Your task to perform on an android device: Check the weather Image 0: 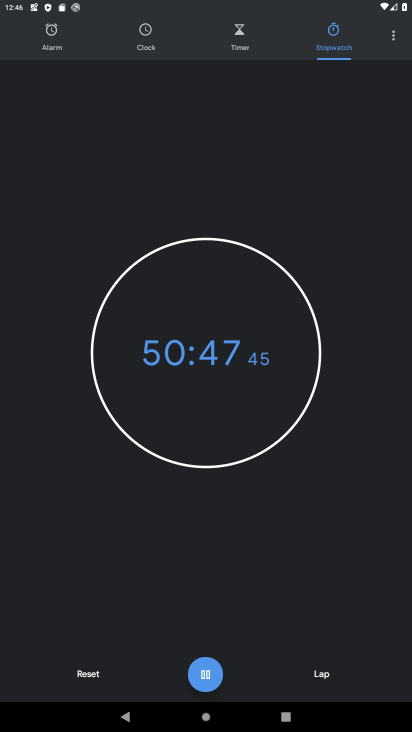
Step 0: press home button
Your task to perform on an android device: Check the weather Image 1: 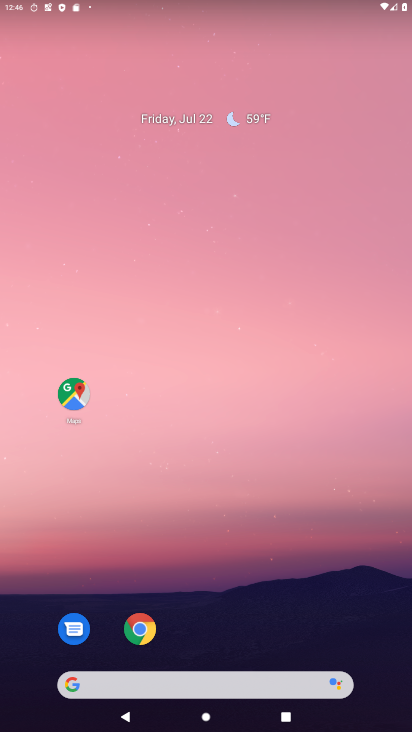
Step 1: drag from (281, 692) to (296, 213)
Your task to perform on an android device: Check the weather Image 2: 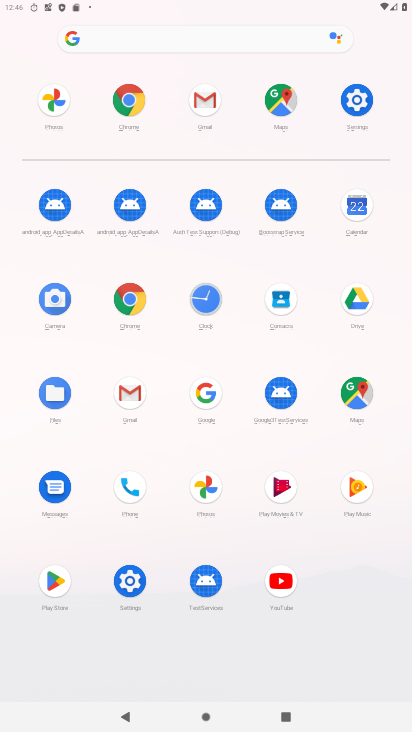
Step 2: click (208, 392)
Your task to perform on an android device: Check the weather Image 3: 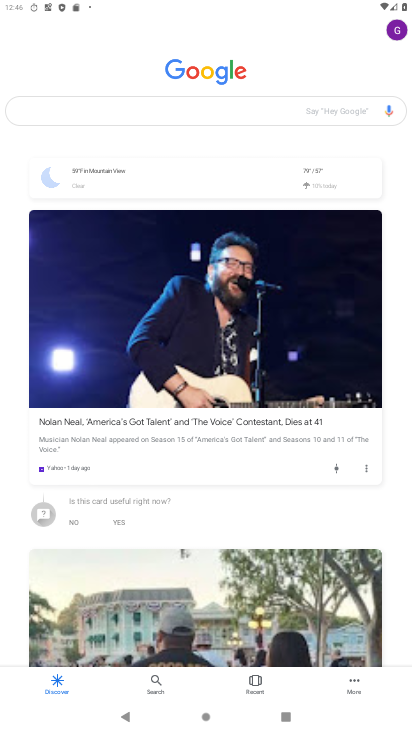
Step 3: click (212, 110)
Your task to perform on an android device: Check the weather Image 4: 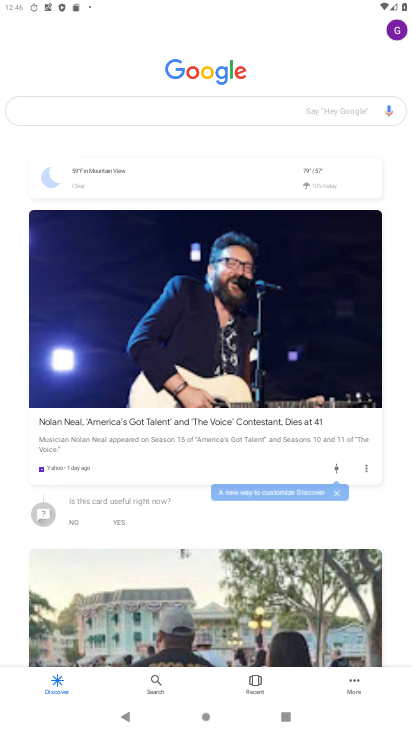
Step 4: click (212, 110)
Your task to perform on an android device: Check the weather Image 5: 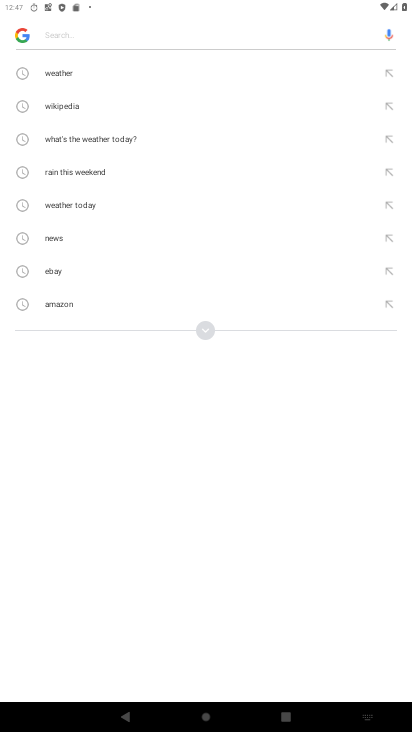
Step 5: click (85, 76)
Your task to perform on an android device: Check the weather Image 6: 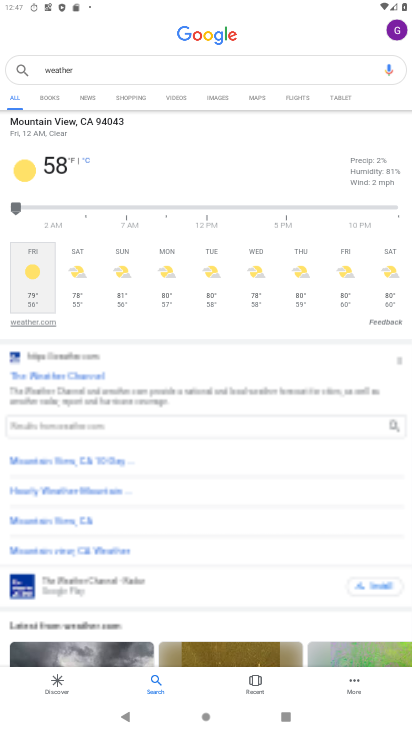
Step 6: task complete